Your task to perform on an android device: Go to internet settings Image 0: 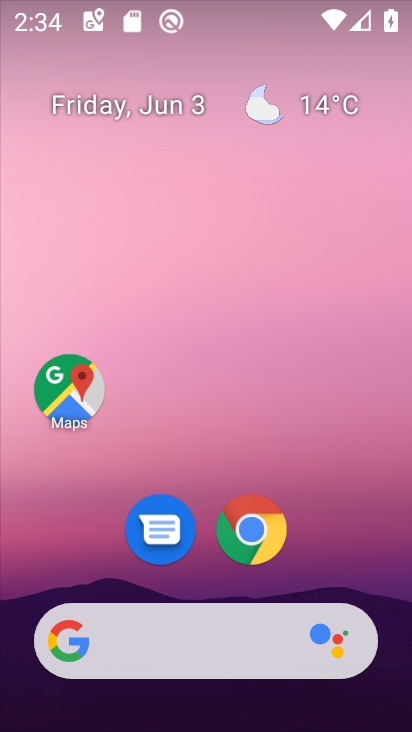
Step 0: drag from (250, 700) to (144, 167)
Your task to perform on an android device: Go to internet settings Image 1: 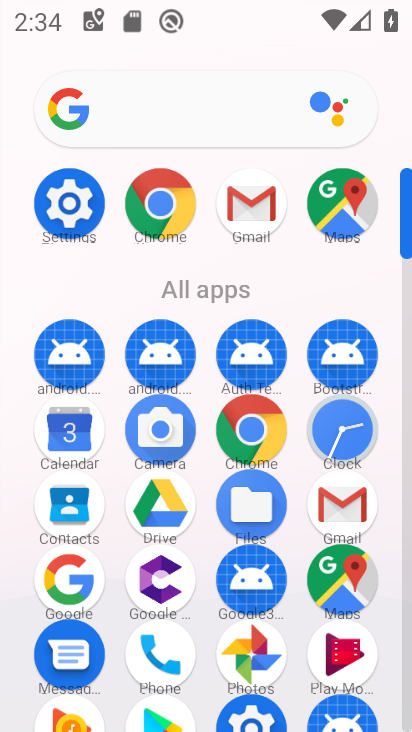
Step 1: click (62, 196)
Your task to perform on an android device: Go to internet settings Image 2: 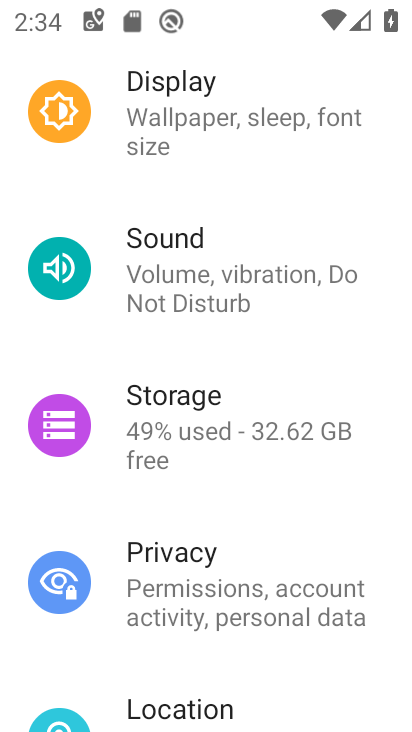
Step 2: drag from (207, 519) to (193, 312)
Your task to perform on an android device: Go to internet settings Image 3: 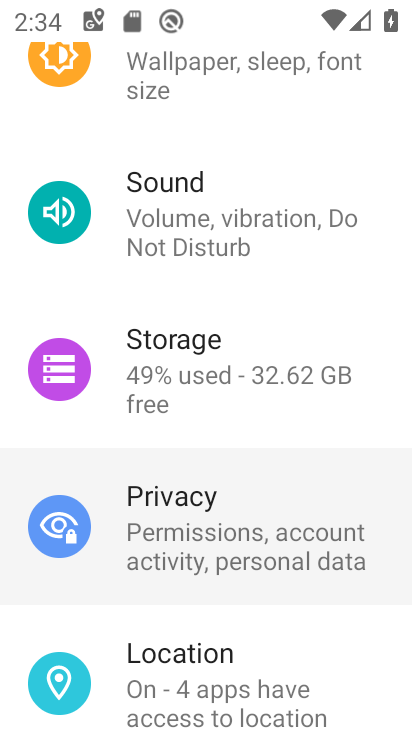
Step 3: drag from (203, 167) to (261, 702)
Your task to perform on an android device: Go to internet settings Image 4: 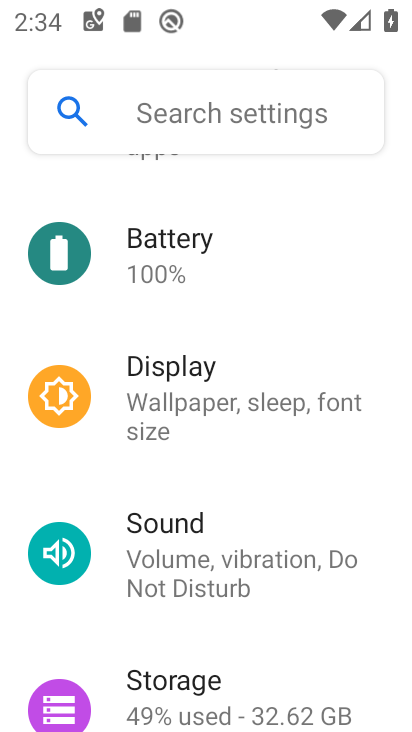
Step 4: drag from (226, 336) to (264, 608)
Your task to perform on an android device: Go to internet settings Image 5: 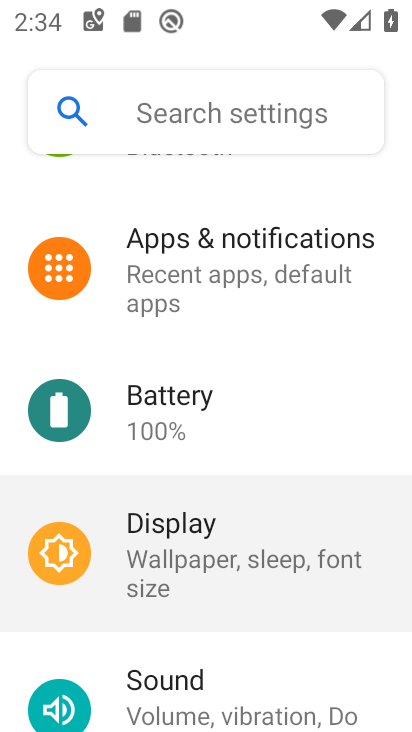
Step 5: drag from (152, 244) to (212, 620)
Your task to perform on an android device: Go to internet settings Image 6: 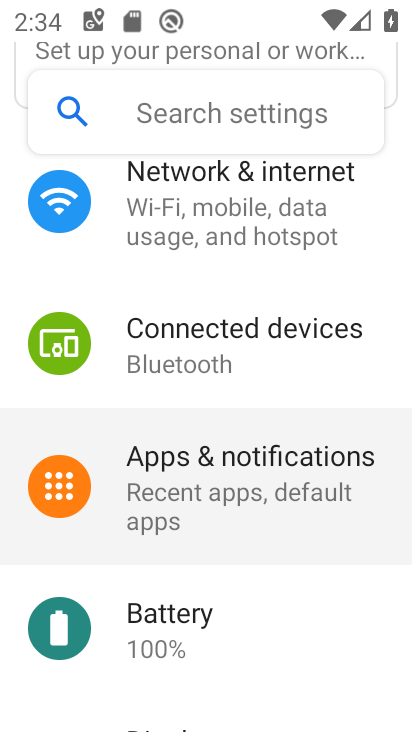
Step 6: drag from (194, 327) to (247, 608)
Your task to perform on an android device: Go to internet settings Image 7: 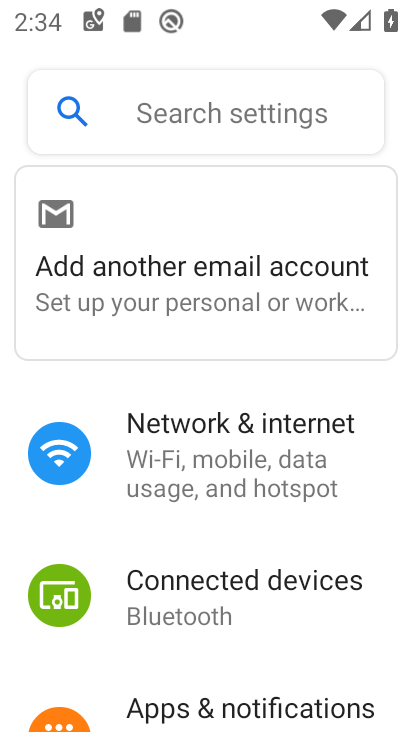
Step 7: drag from (212, 330) to (266, 605)
Your task to perform on an android device: Go to internet settings Image 8: 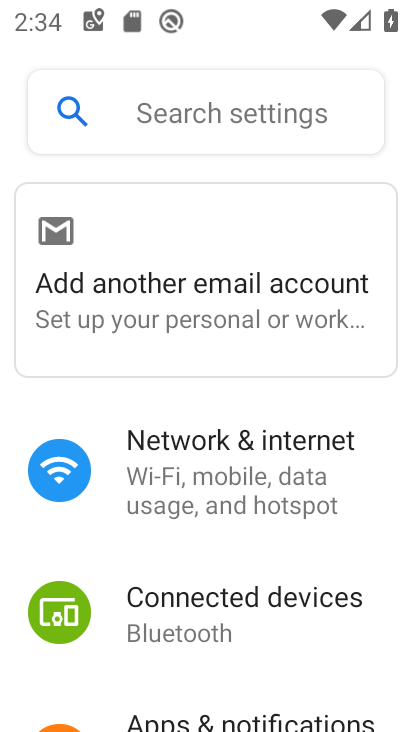
Step 8: click (219, 485)
Your task to perform on an android device: Go to internet settings Image 9: 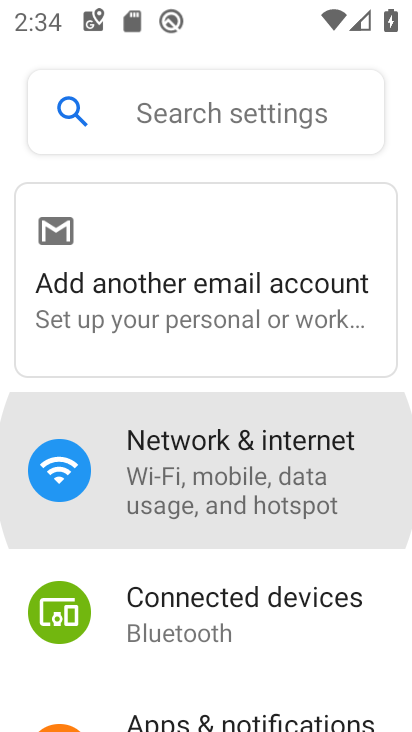
Step 9: click (219, 485)
Your task to perform on an android device: Go to internet settings Image 10: 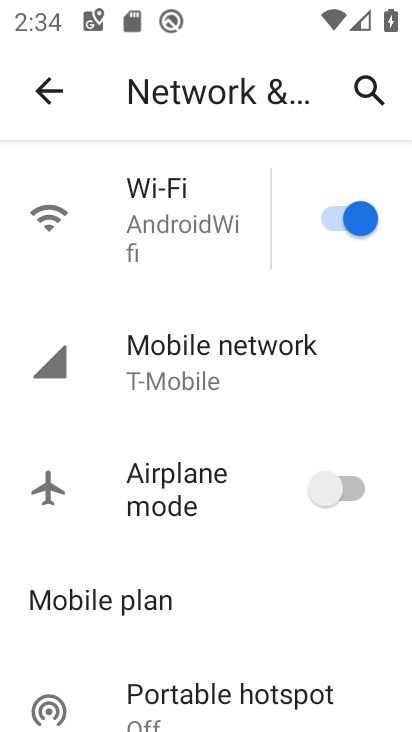
Step 10: task complete